Your task to perform on an android device: turn pop-ups on in chrome Image 0: 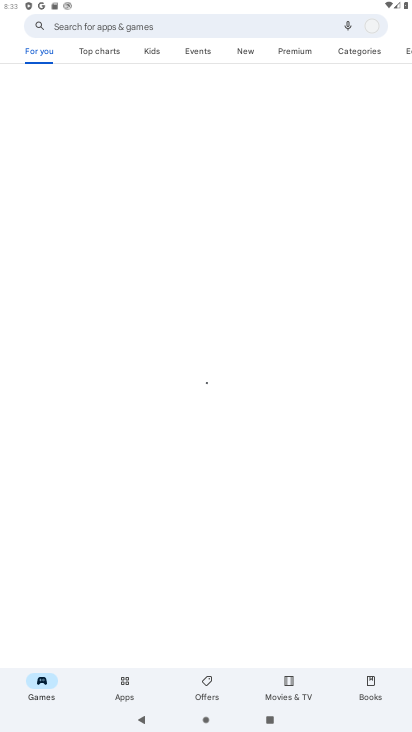
Step 0: press home button
Your task to perform on an android device: turn pop-ups on in chrome Image 1: 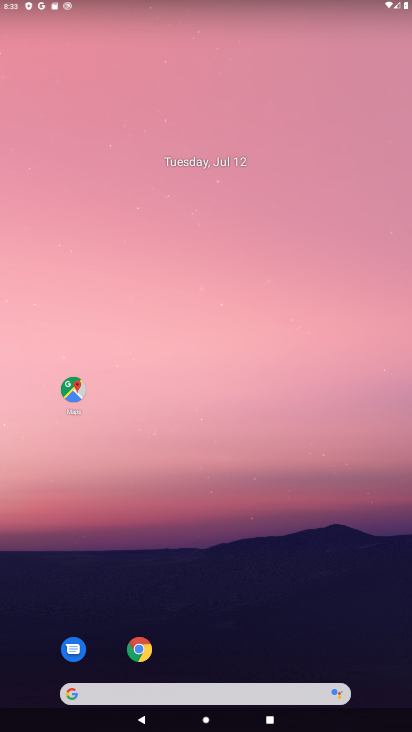
Step 1: click (152, 656)
Your task to perform on an android device: turn pop-ups on in chrome Image 2: 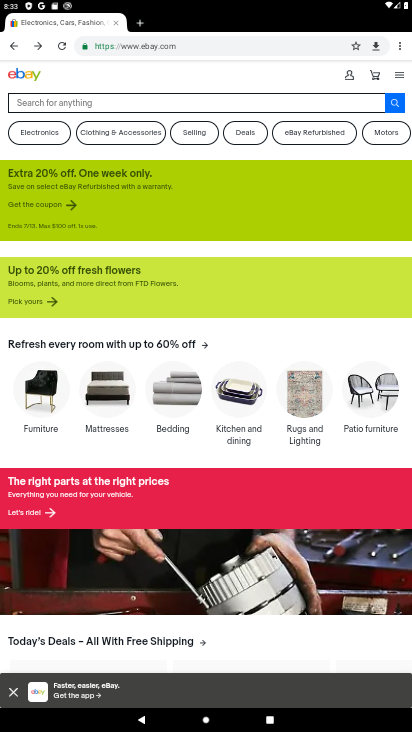
Step 2: click (401, 47)
Your task to perform on an android device: turn pop-ups on in chrome Image 3: 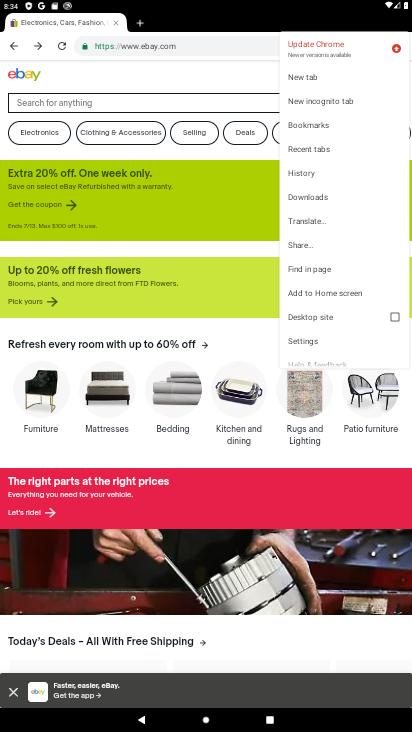
Step 3: click (311, 338)
Your task to perform on an android device: turn pop-ups on in chrome Image 4: 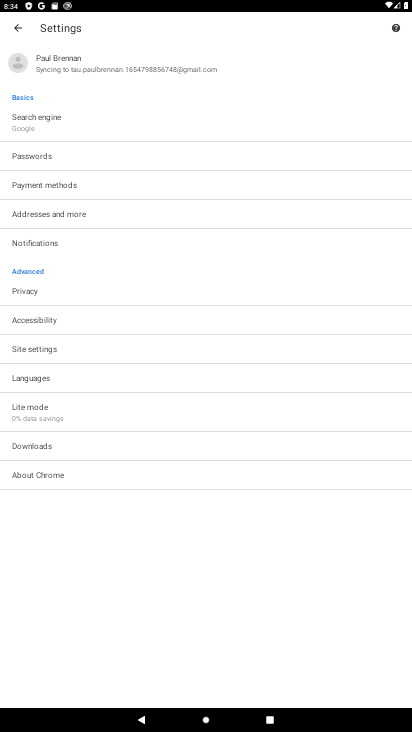
Step 4: click (88, 352)
Your task to perform on an android device: turn pop-ups on in chrome Image 5: 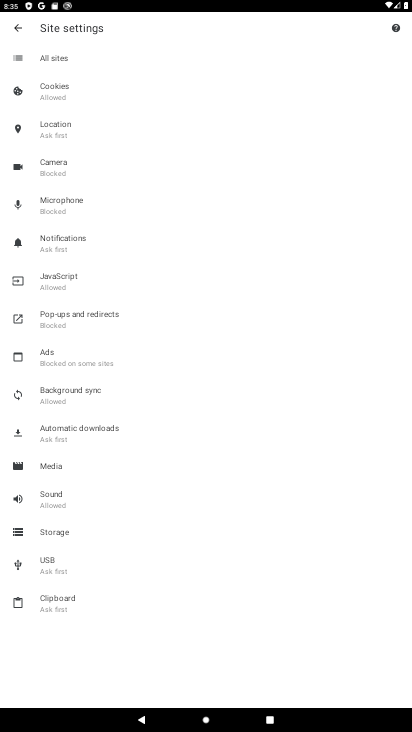
Step 5: click (143, 278)
Your task to perform on an android device: turn pop-ups on in chrome Image 6: 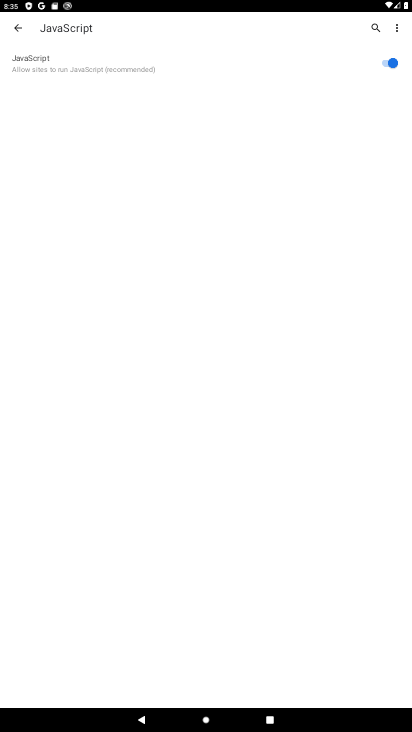
Step 6: task complete